Your task to perform on an android device: Open Google Image 0: 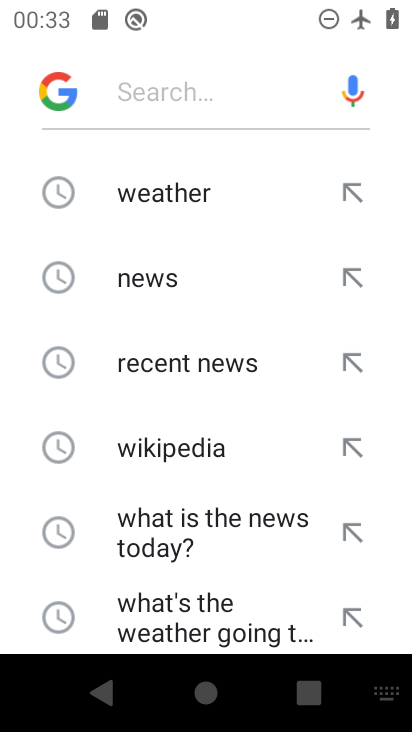
Step 0: press home button
Your task to perform on an android device: Open Google Image 1: 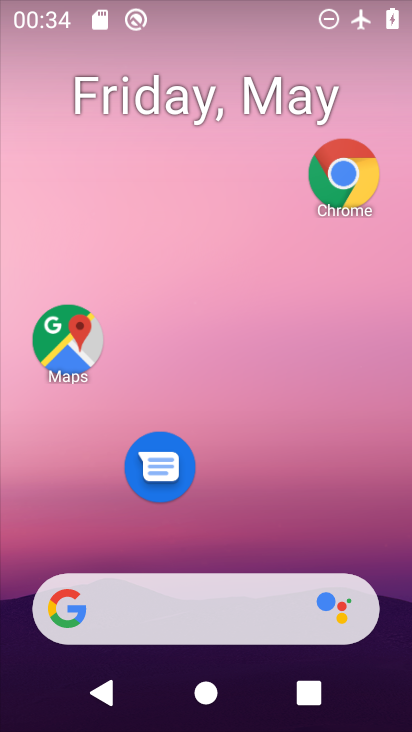
Step 1: drag from (144, 465) to (160, 178)
Your task to perform on an android device: Open Google Image 2: 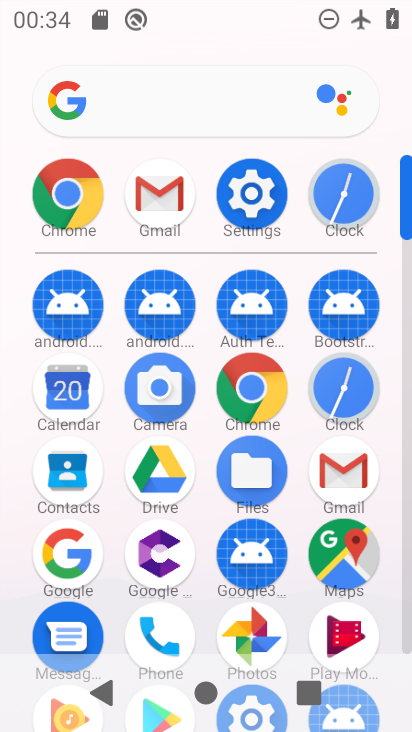
Step 2: click (50, 547)
Your task to perform on an android device: Open Google Image 3: 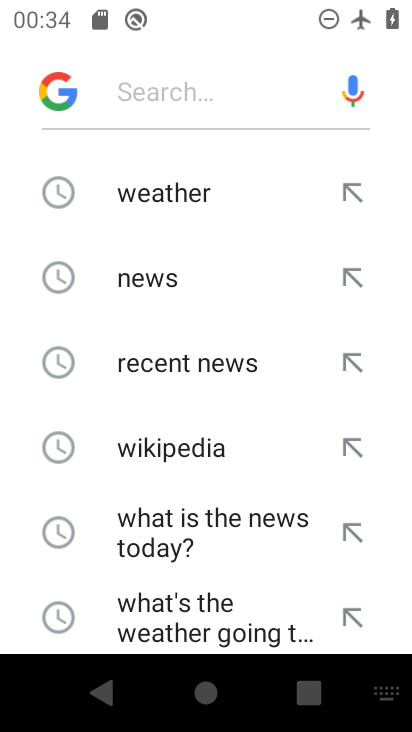
Step 3: task complete